Your task to perform on an android device: Go to network settings Image 0: 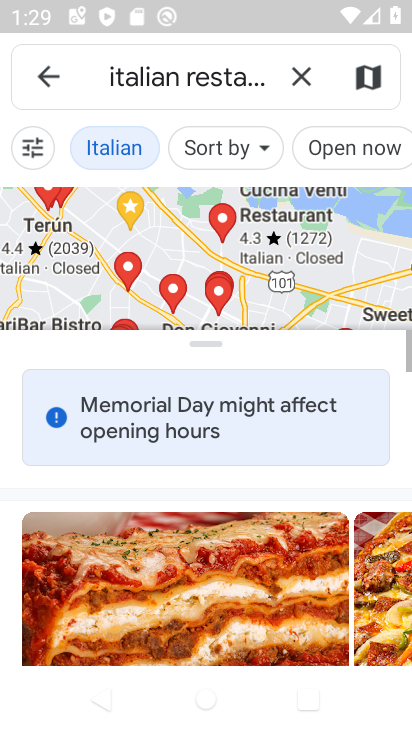
Step 0: drag from (234, 711) to (232, 259)
Your task to perform on an android device: Go to network settings Image 1: 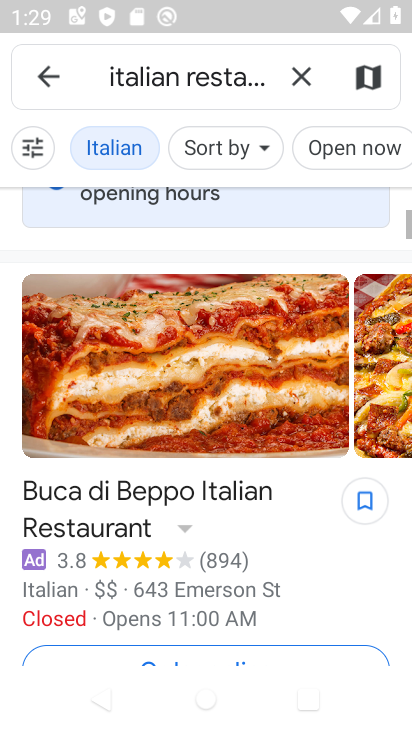
Step 1: press home button
Your task to perform on an android device: Go to network settings Image 2: 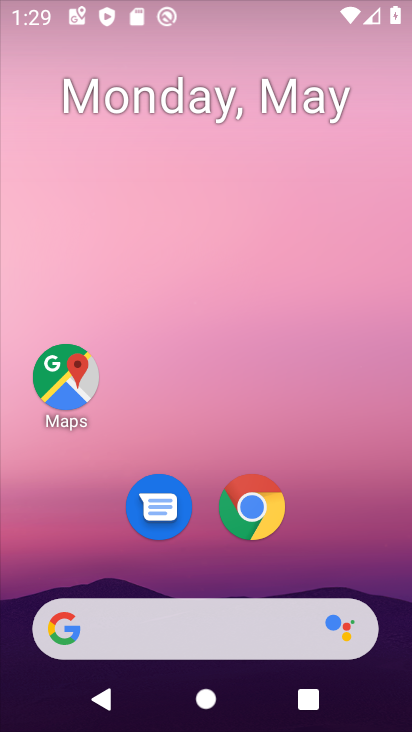
Step 2: drag from (232, 719) to (234, 173)
Your task to perform on an android device: Go to network settings Image 3: 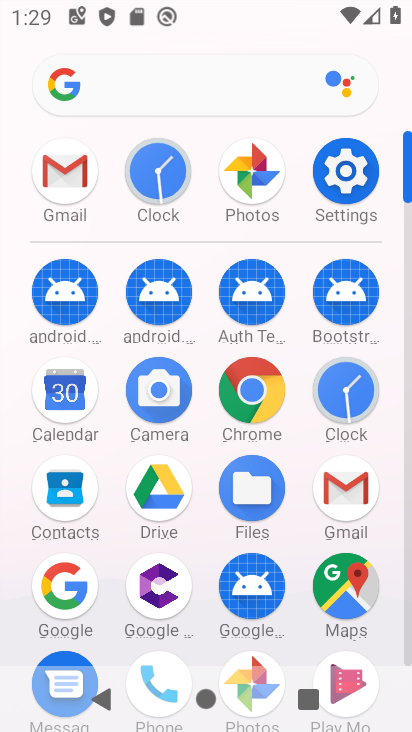
Step 3: click (337, 155)
Your task to perform on an android device: Go to network settings Image 4: 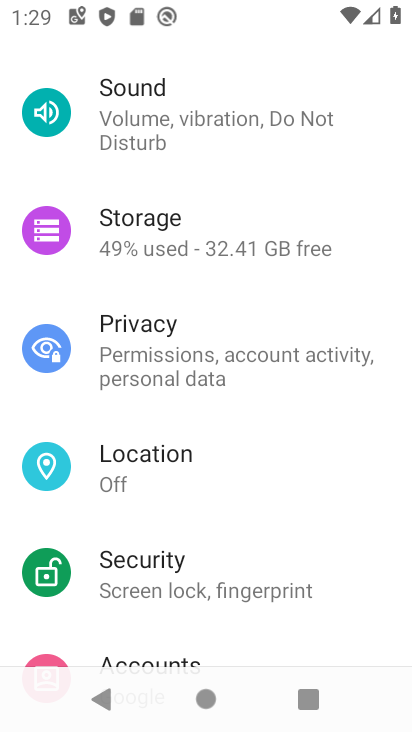
Step 4: drag from (230, 108) to (251, 533)
Your task to perform on an android device: Go to network settings Image 5: 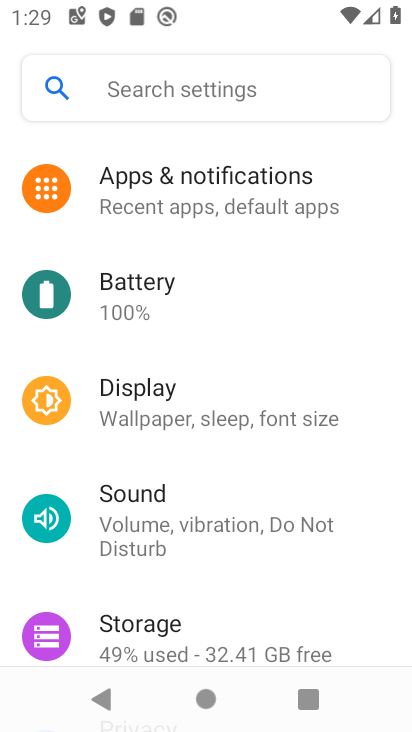
Step 5: drag from (178, 136) to (188, 492)
Your task to perform on an android device: Go to network settings Image 6: 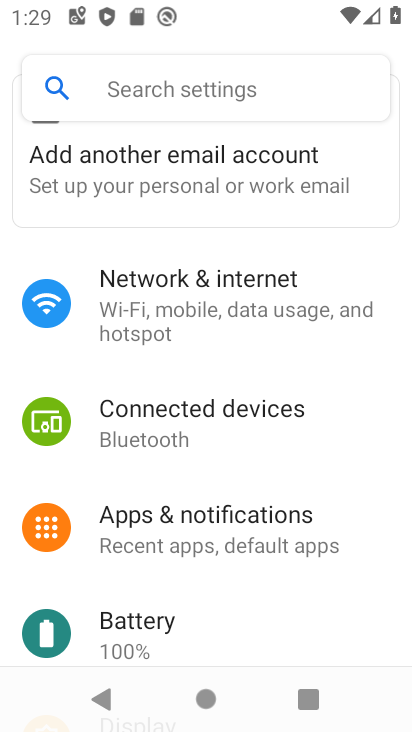
Step 6: click (184, 289)
Your task to perform on an android device: Go to network settings Image 7: 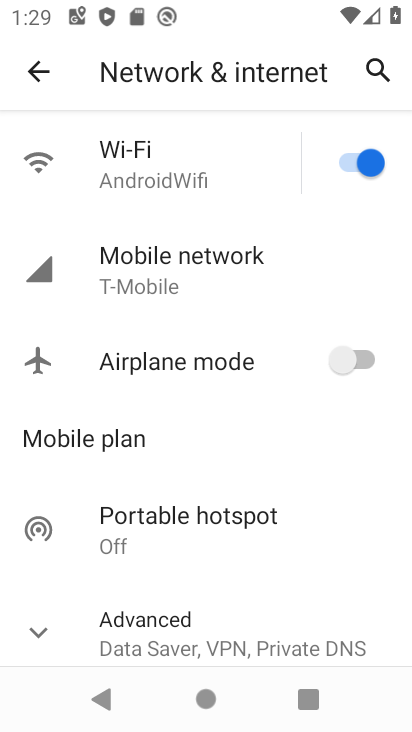
Step 7: click (145, 263)
Your task to perform on an android device: Go to network settings Image 8: 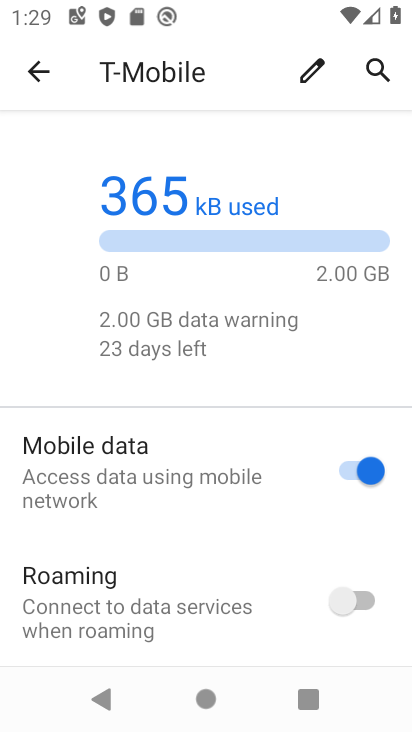
Step 8: task complete